Your task to perform on an android device: clear history in the chrome app Image 0: 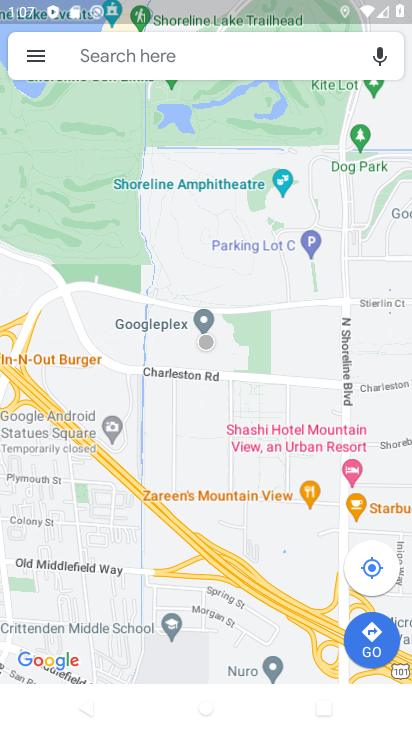
Step 0: click (130, 564)
Your task to perform on an android device: clear history in the chrome app Image 1: 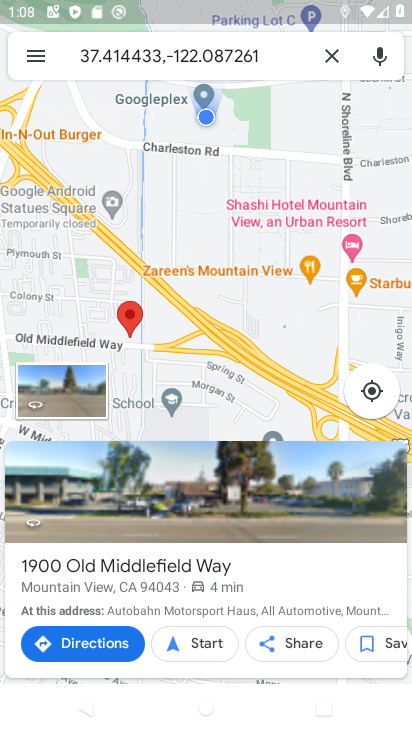
Step 1: press home button
Your task to perform on an android device: clear history in the chrome app Image 2: 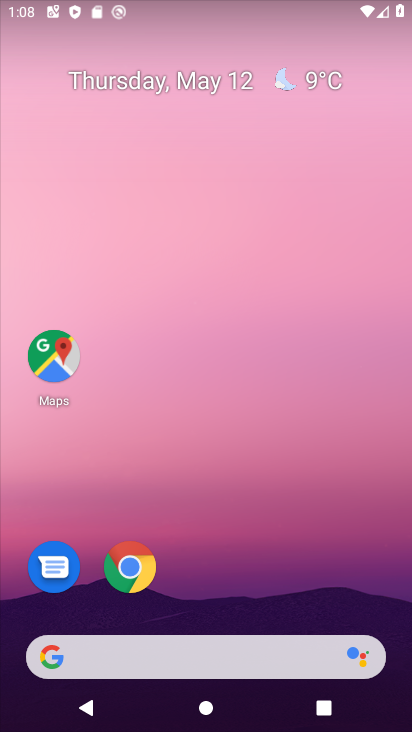
Step 2: click (129, 565)
Your task to perform on an android device: clear history in the chrome app Image 3: 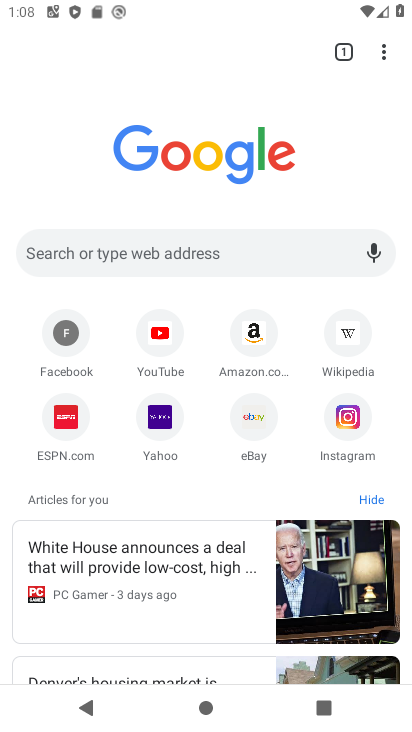
Step 3: click (384, 46)
Your task to perform on an android device: clear history in the chrome app Image 4: 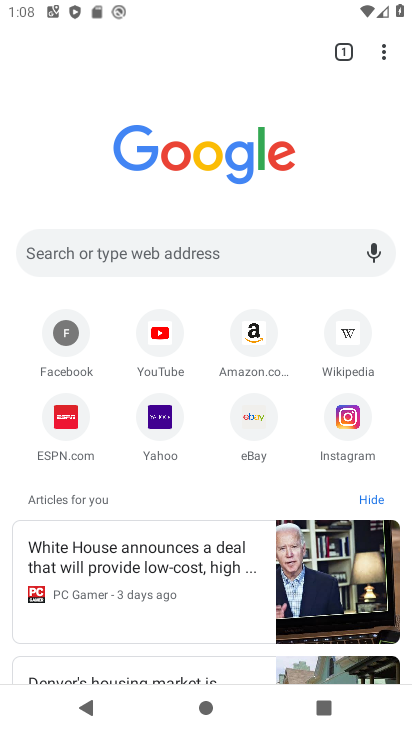
Step 4: click (380, 51)
Your task to perform on an android device: clear history in the chrome app Image 5: 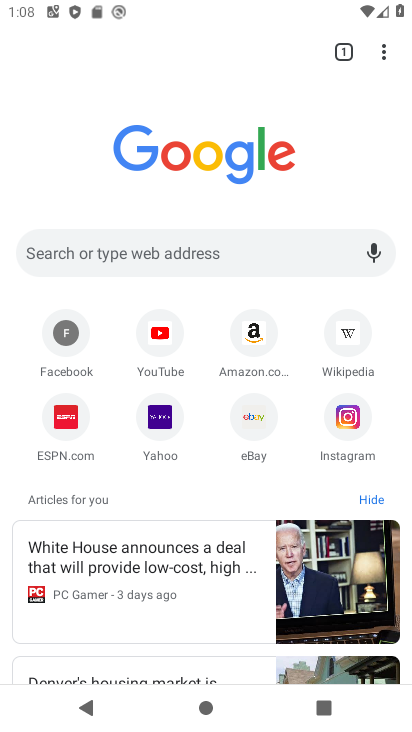
Step 5: click (385, 49)
Your task to perform on an android device: clear history in the chrome app Image 6: 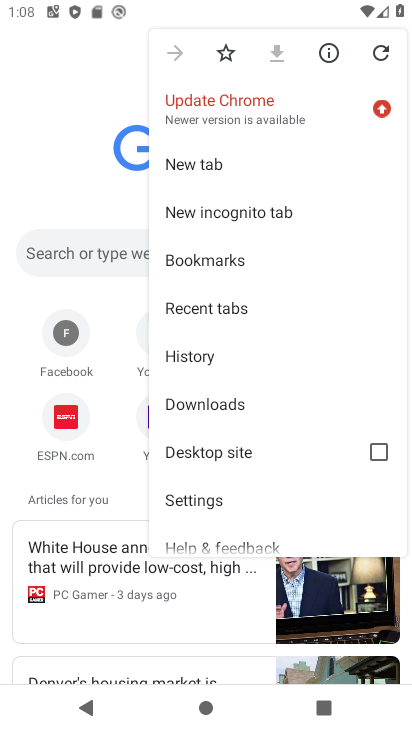
Step 6: click (226, 355)
Your task to perform on an android device: clear history in the chrome app Image 7: 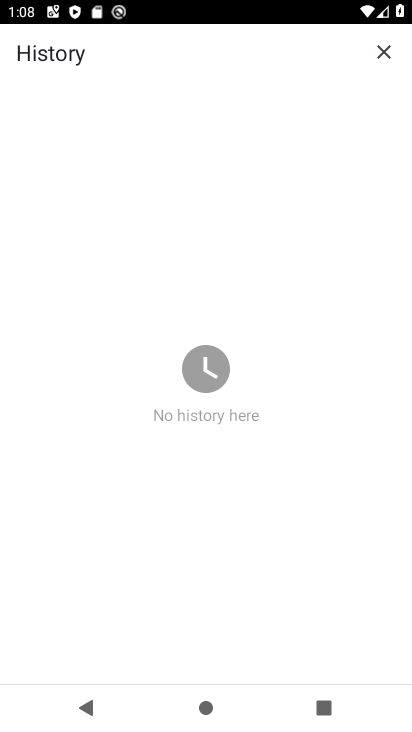
Step 7: task complete